Your task to perform on an android device: search for starred emails in the gmail app Image 0: 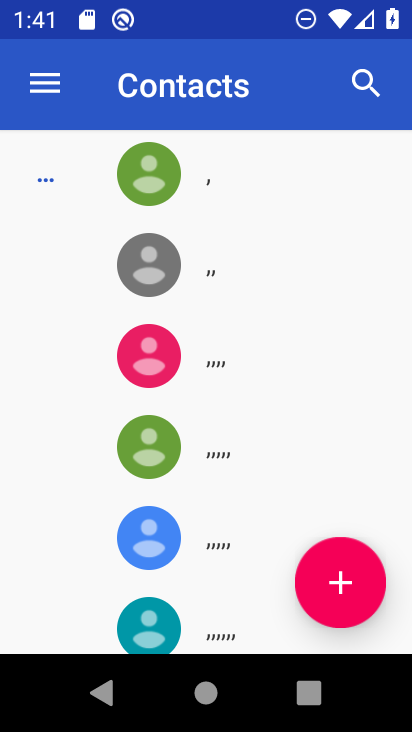
Step 0: press home button
Your task to perform on an android device: search for starred emails in the gmail app Image 1: 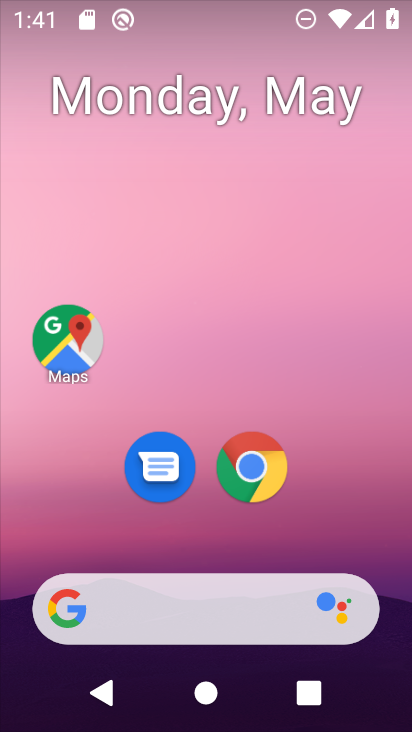
Step 1: drag from (130, 579) to (280, 1)
Your task to perform on an android device: search for starred emails in the gmail app Image 2: 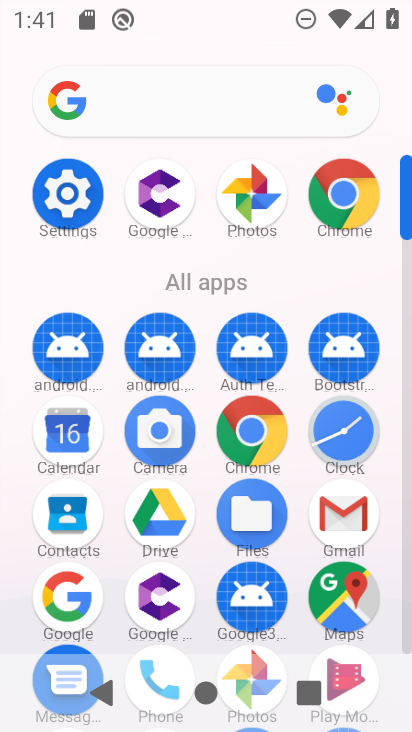
Step 2: drag from (173, 579) to (241, 368)
Your task to perform on an android device: search for starred emails in the gmail app Image 3: 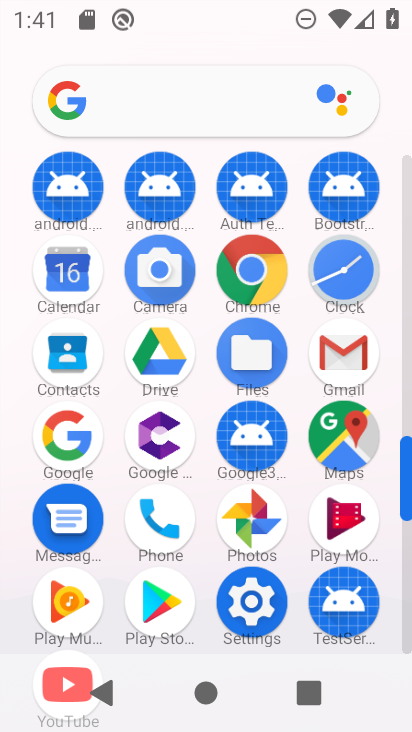
Step 3: click (341, 346)
Your task to perform on an android device: search for starred emails in the gmail app Image 4: 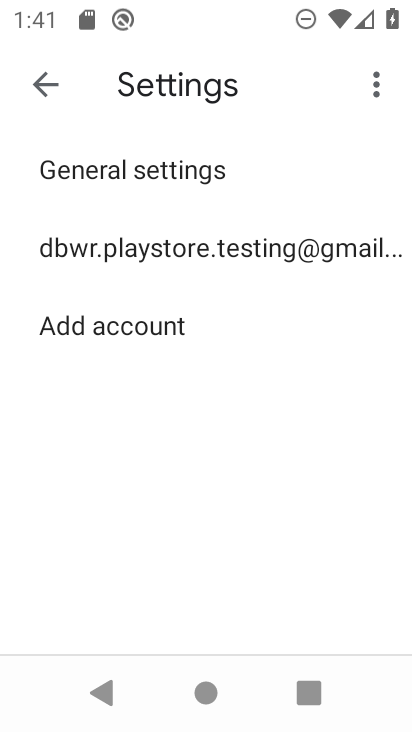
Step 4: click (39, 92)
Your task to perform on an android device: search for starred emails in the gmail app Image 5: 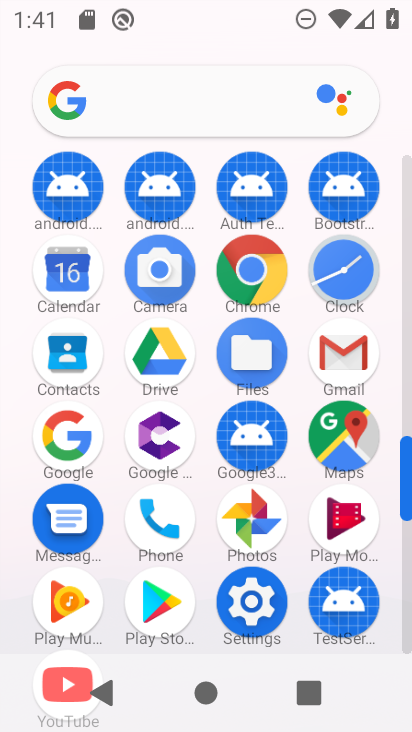
Step 5: click (358, 346)
Your task to perform on an android device: search for starred emails in the gmail app Image 6: 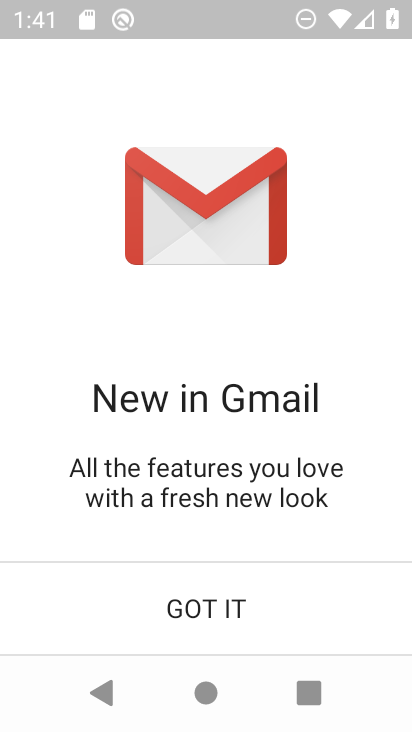
Step 6: click (217, 577)
Your task to perform on an android device: search for starred emails in the gmail app Image 7: 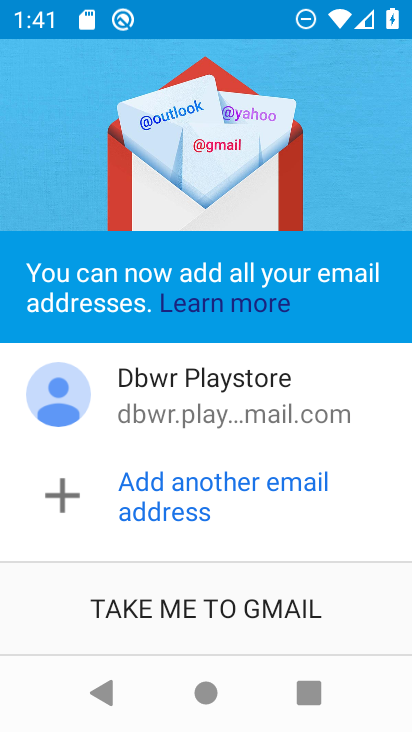
Step 7: click (236, 609)
Your task to perform on an android device: search for starred emails in the gmail app Image 8: 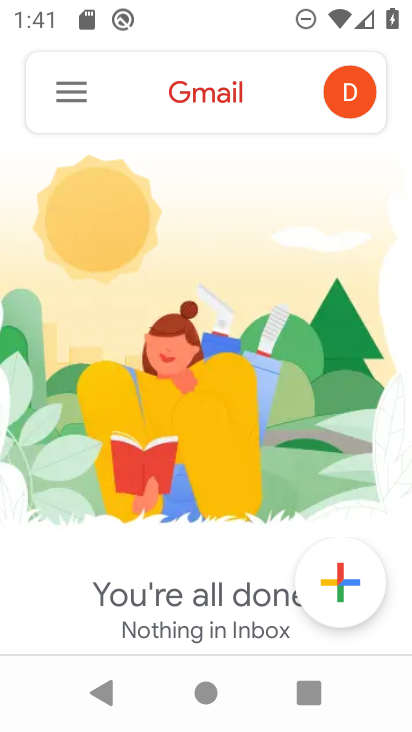
Step 8: click (61, 96)
Your task to perform on an android device: search for starred emails in the gmail app Image 9: 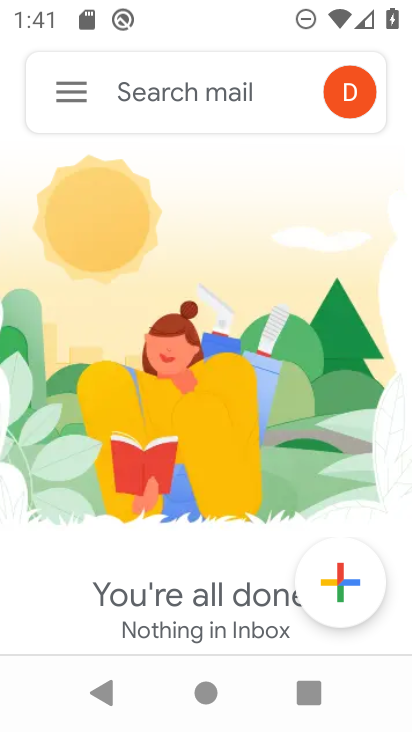
Step 9: click (75, 92)
Your task to perform on an android device: search for starred emails in the gmail app Image 10: 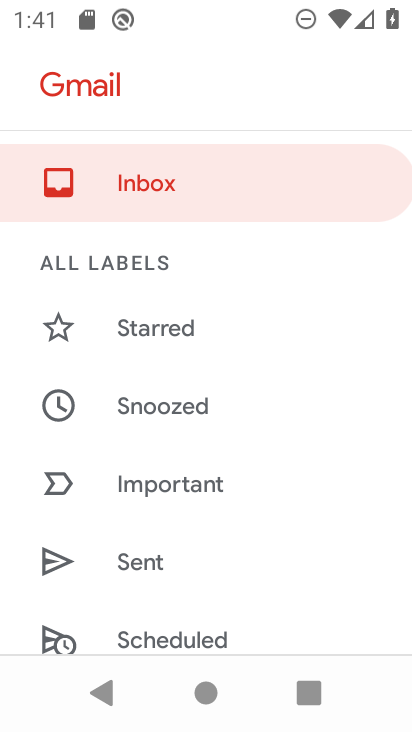
Step 10: click (193, 323)
Your task to perform on an android device: search for starred emails in the gmail app Image 11: 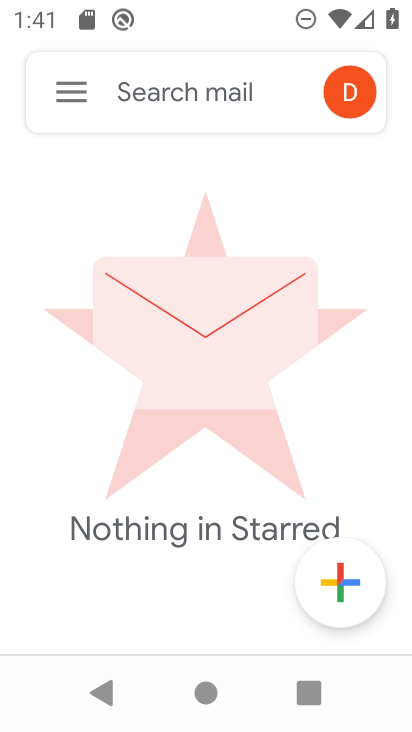
Step 11: task complete